Your task to perform on an android device: install app "Messenger Lite" Image 0: 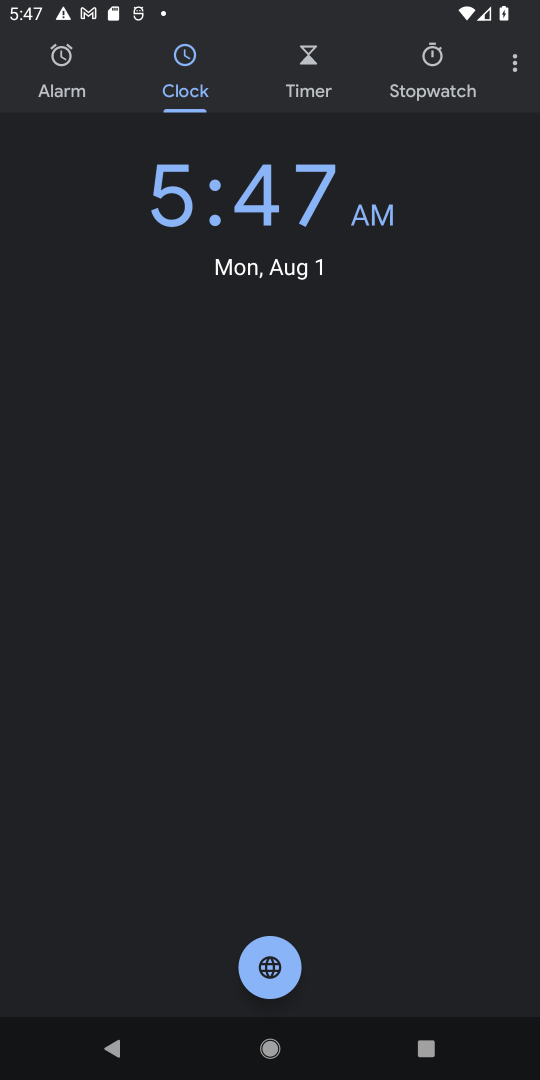
Step 0: press home button
Your task to perform on an android device: install app "Messenger Lite" Image 1: 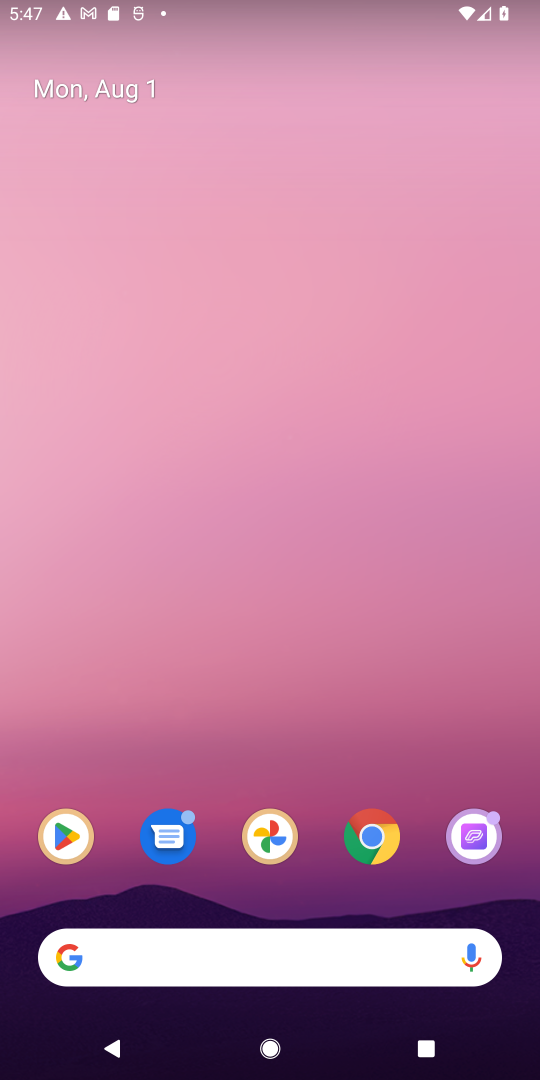
Step 1: click (70, 835)
Your task to perform on an android device: install app "Messenger Lite" Image 2: 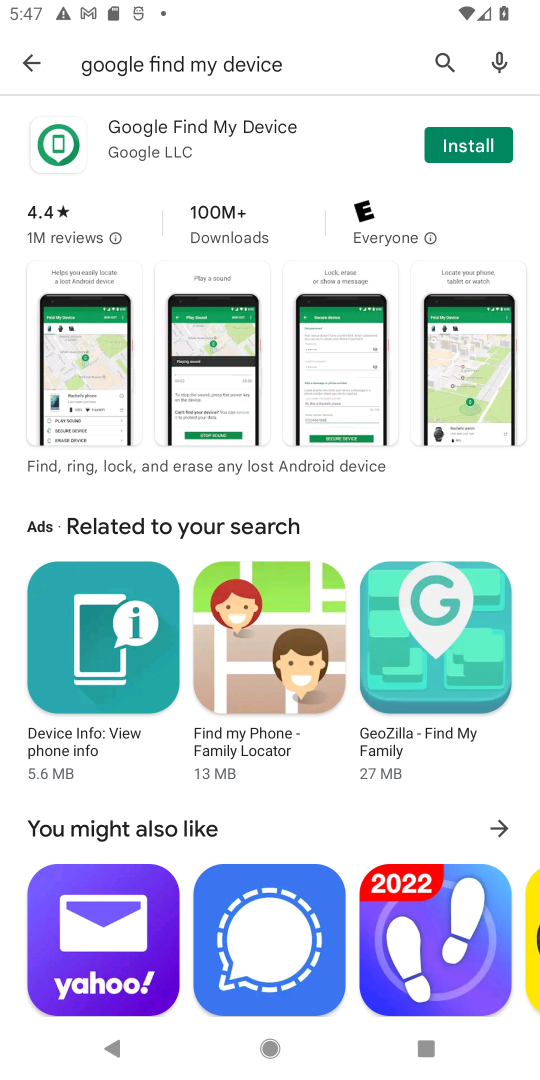
Step 2: click (436, 51)
Your task to perform on an android device: install app "Messenger Lite" Image 3: 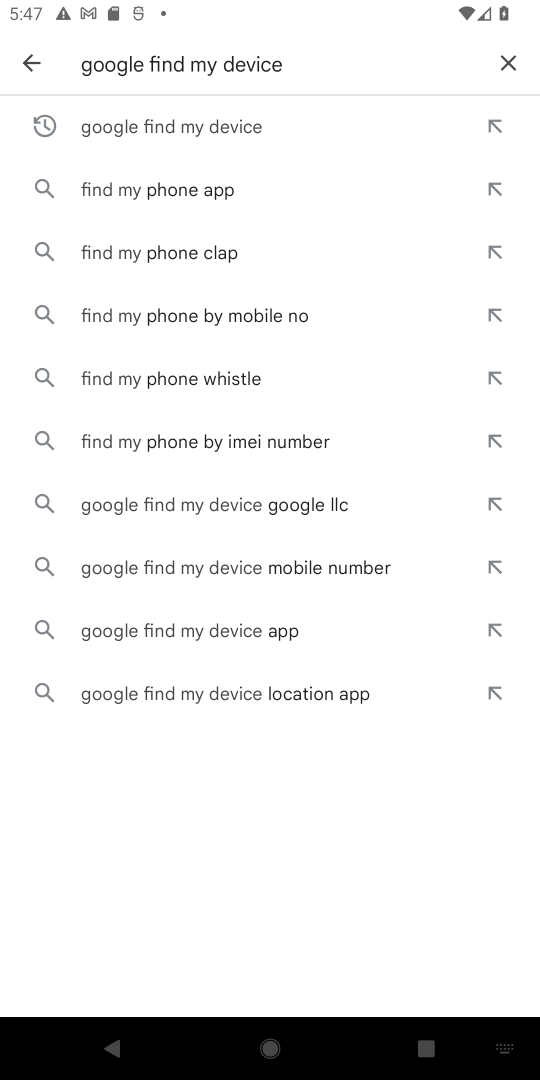
Step 3: click (511, 55)
Your task to perform on an android device: install app "Messenger Lite" Image 4: 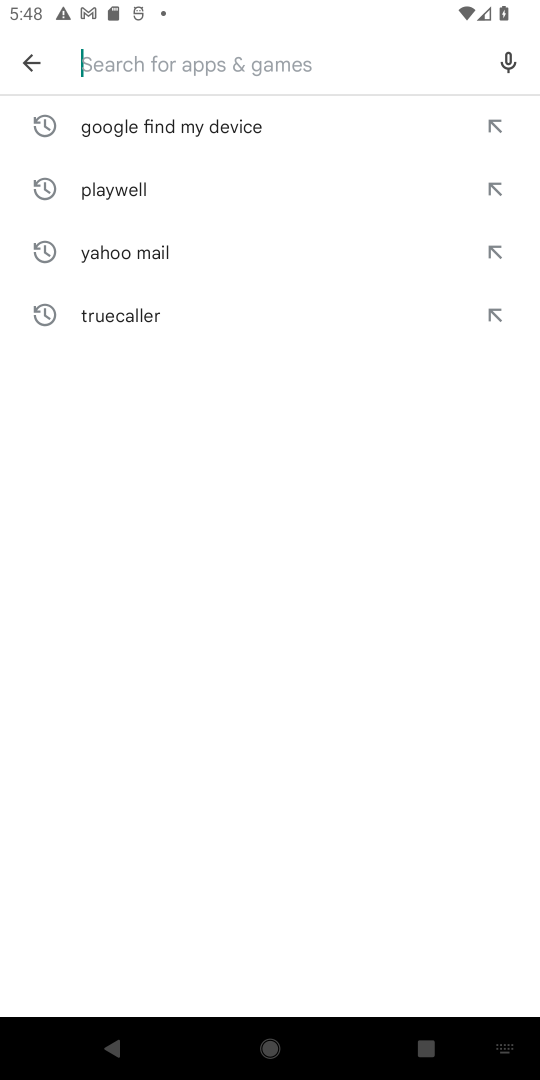
Step 4: type "Messenger Lite"
Your task to perform on an android device: install app "Messenger Lite" Image 5: 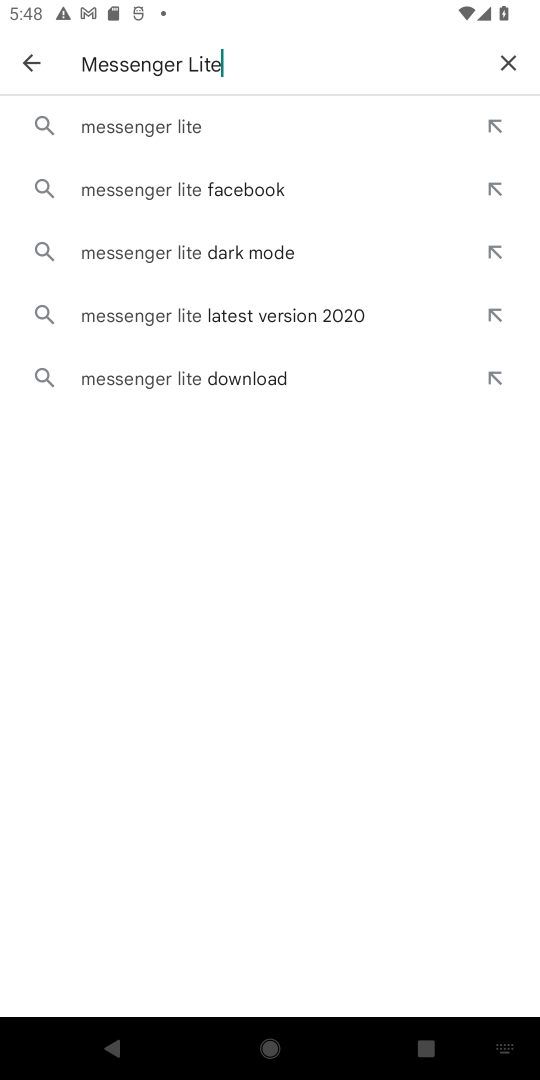
Step 5: click (142, 125)
Your task to perform on an android device: install app "Messenger Lite" Image 6: 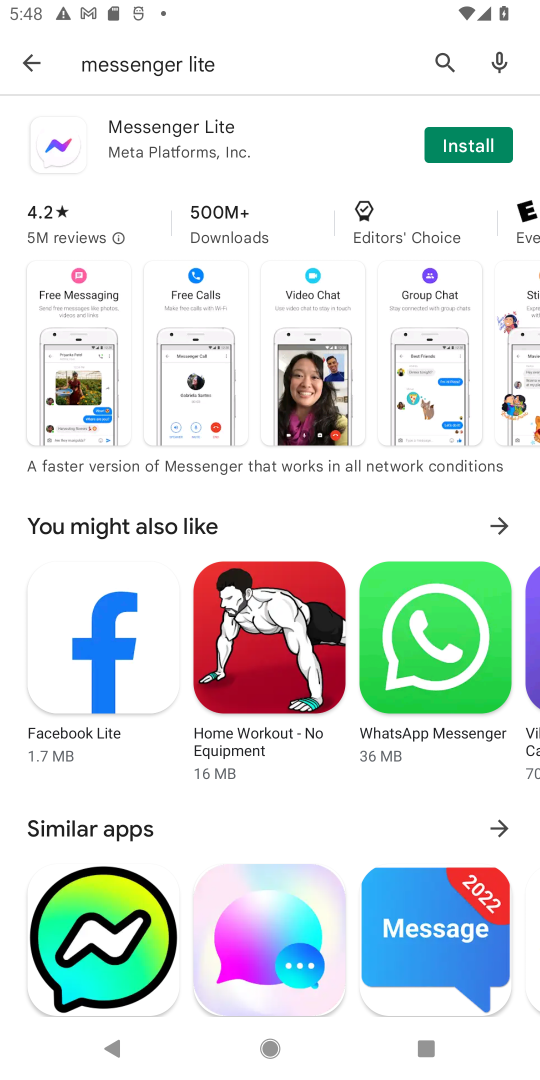
Step 6: click (472, 150)
Your task to perform on an android device: install app "Messenger Lite" Image 7: 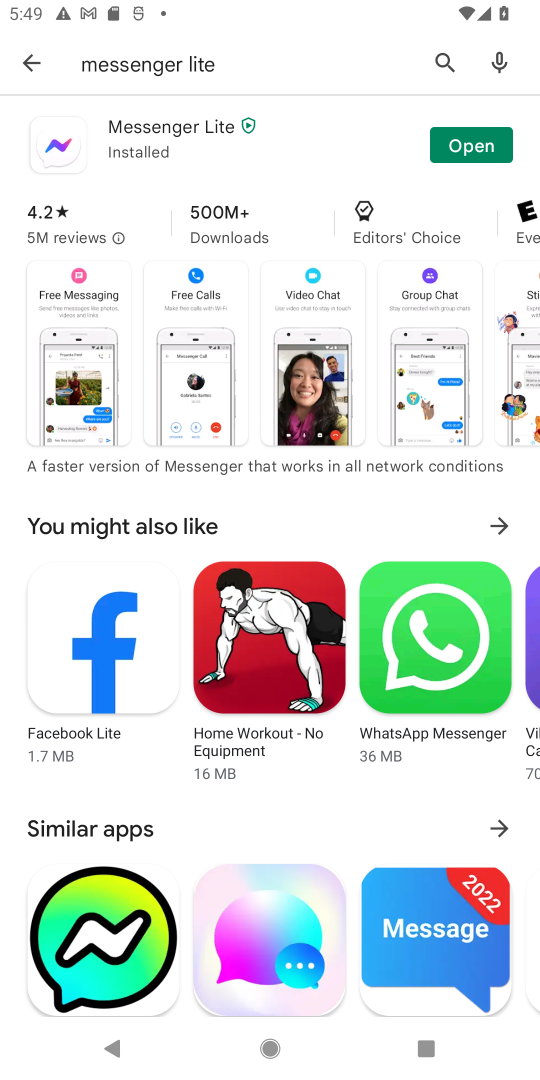
Step 7: task complete